Your task to perform on an android device: change the upload size in google photos Image 0: 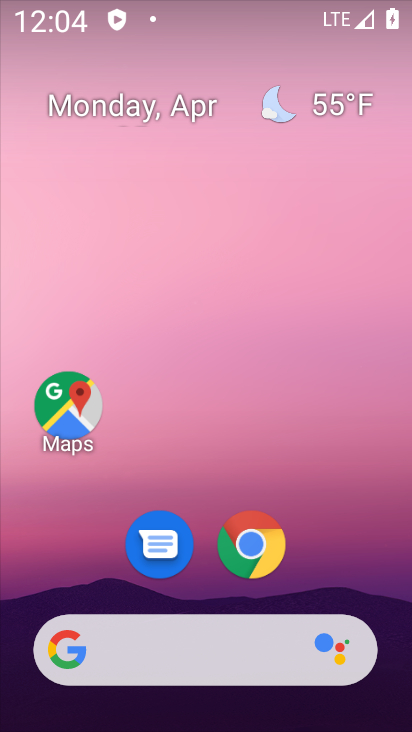
Step 0: drag from (317, 544) to (73, 130)
Your task to perform on an android device: change the upload size in google photos Image 1: 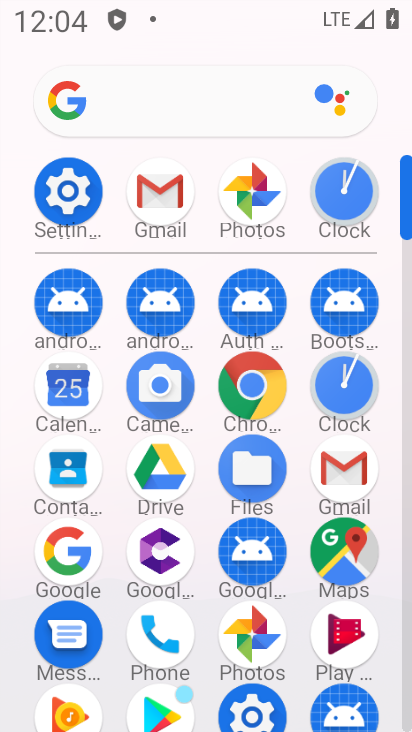
Step 1: click (245, 637)
Your task to perform on an android device: change the upload size in google photos Image 2: 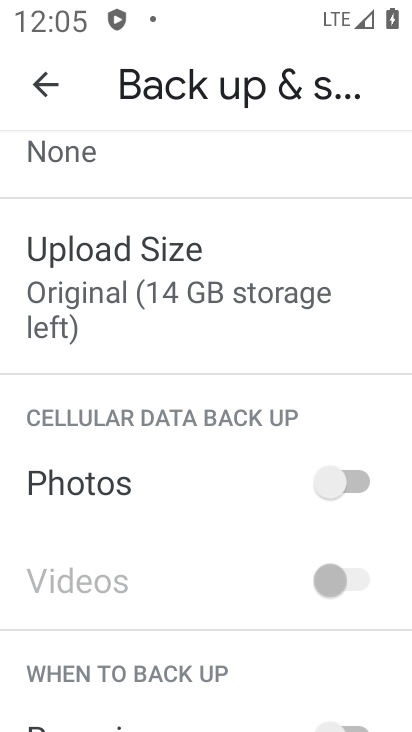
Step 2: click (96, 300)
Your task to perform on an android device: change the upload size in google photos Image 3: 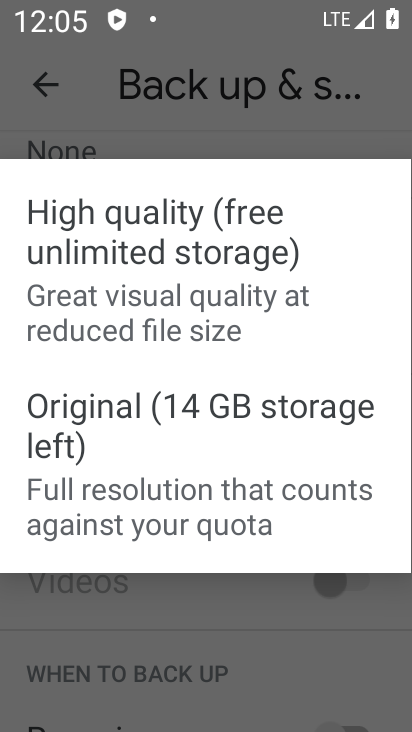
Step 3: click (96, 300)
Your task to perform on an android device: change the upload size in google photos Image 4: 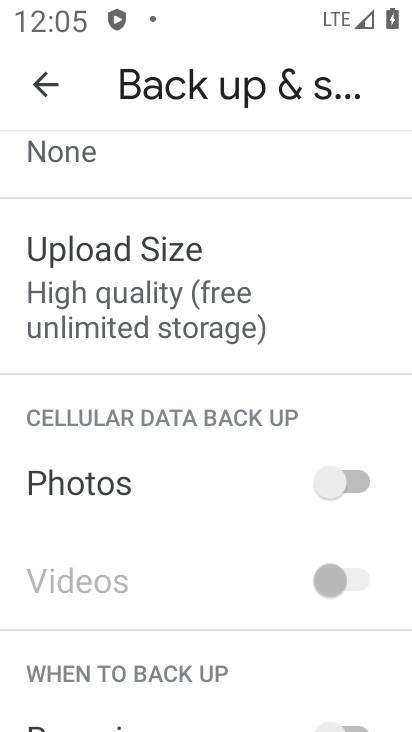
Step 4: task complete